Your task to perform on an android device: stop showing notifications on the lock screen Image 0: 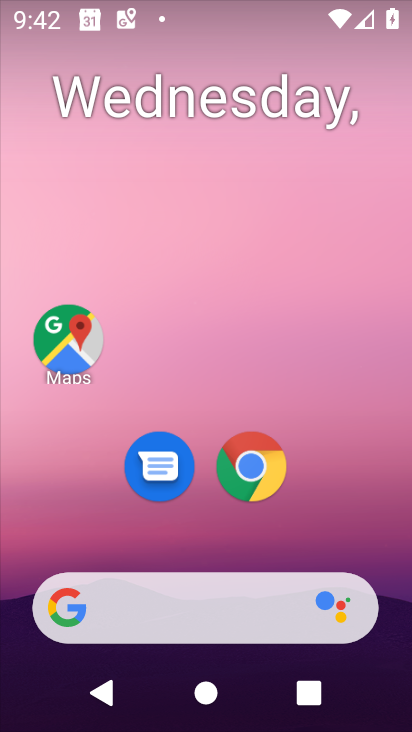
Step 0: click (339, 353)
Your task to perform on an android device: stop showing notifications on the lock screen Image 1: 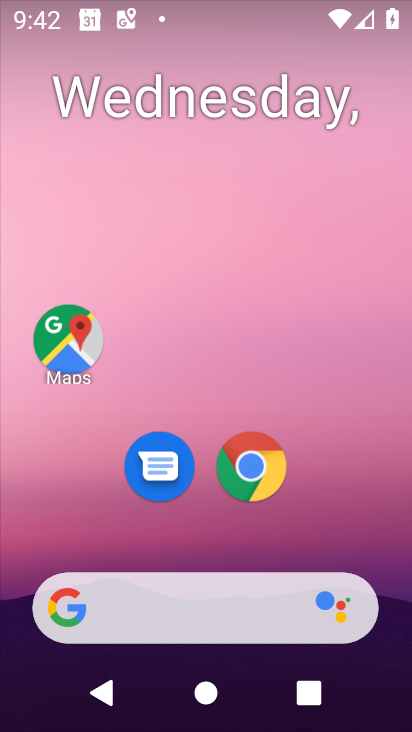
Step 1: drag from (304, 531) to (303, 101)
Your task to perform on an android device: stop showing notifications on the lock screen Image 2: 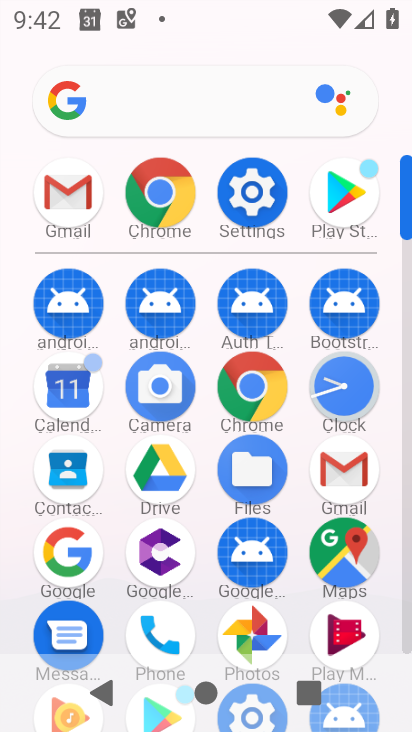
Step 2: click (247, 174)
Your task to perform on an android device: stop showing notifications on the lock screen Image 3: 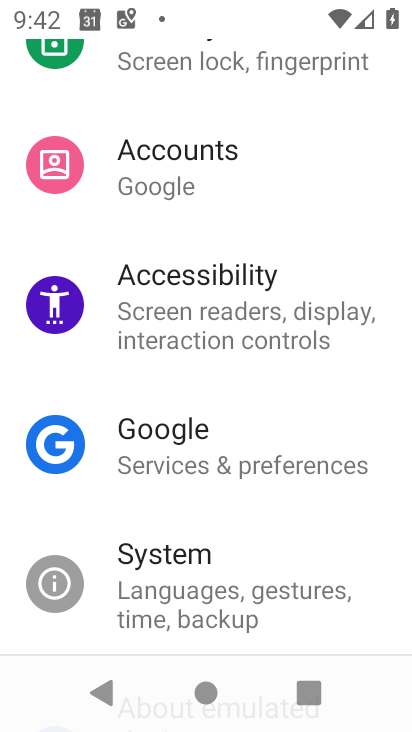
Step 3: drag from (263, 174) to (223, 488)
Your task to perform on an android device: stop showing notifications on the lock screen Image 4: 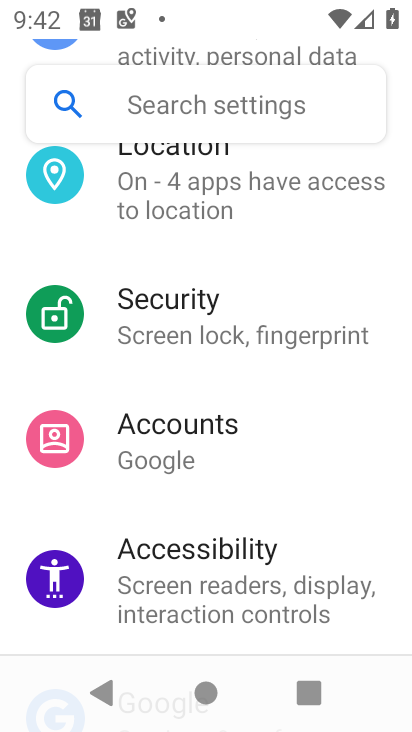
Step 4: drag from (238, 184) to (223, 651)
Your task to perform on an android device: stop showing notifications on the lock screen Image 5: 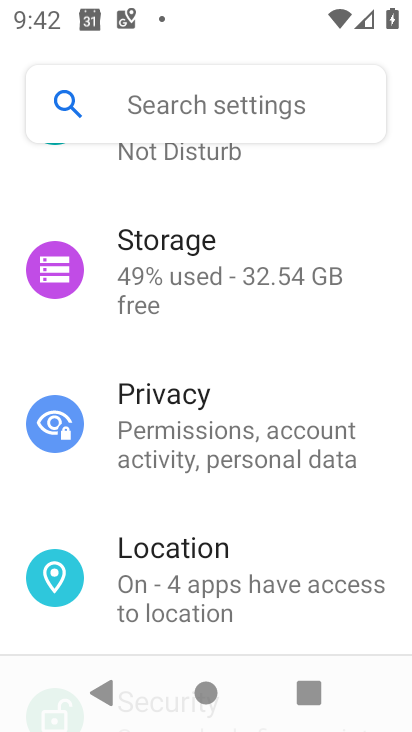
Step 5: drag from (238, 331) to (210, 637)
Your task to perform on an android device: stop showing notifications on the lock screen Image 6: 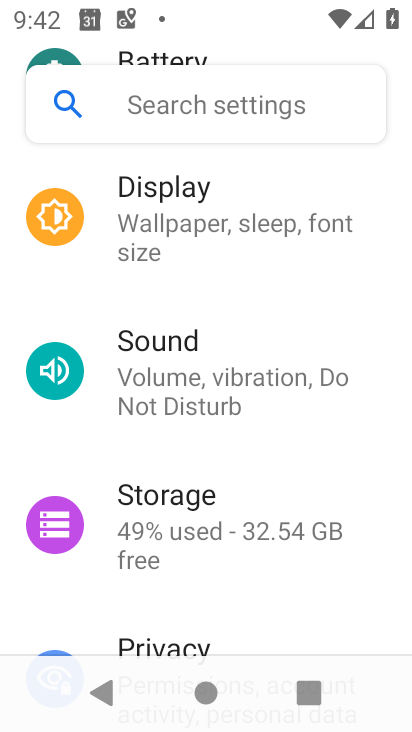
Step 6: drag from (219, 195) to (209, 670)
Your task to perform on an android device: stop showing notifications on the lock screen Image 7: 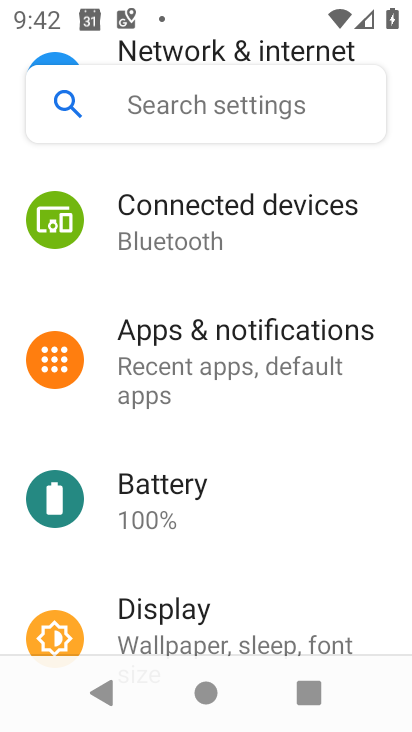
Step 7: click (236, 343)
Your task to perform on an android device: stop showing notifications on the lock screen Image 8: 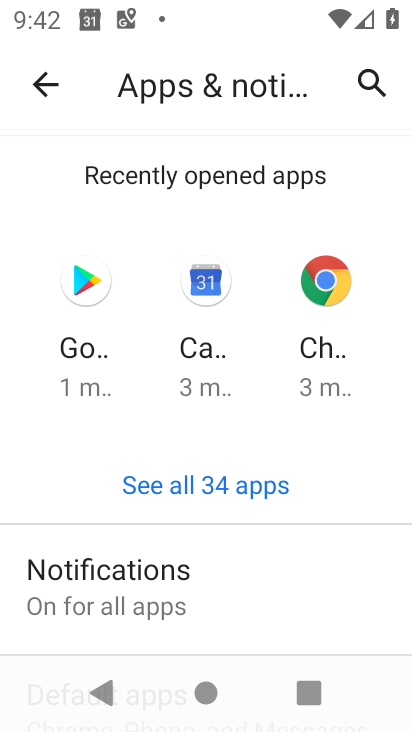
Step 8: drag from (193, 613) to (217, 388)
Your task to perform on an android device: stop showing notifications on the lock screen Image 9: 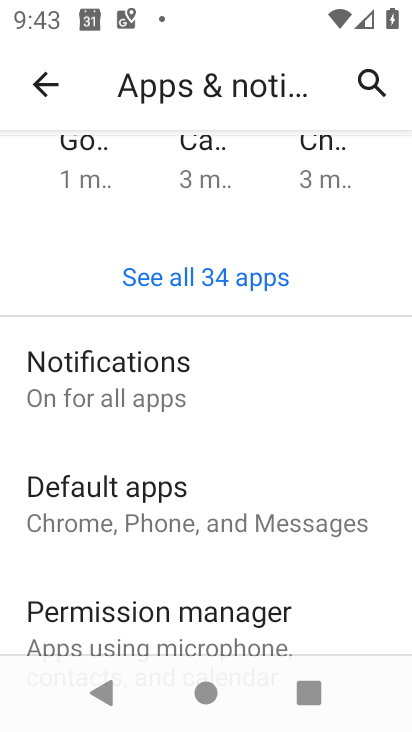
Step 9: drag from (154, 602) to (252, 322)
Your task to perform on an android device: stop showing notifications on the lock screen Image 10: 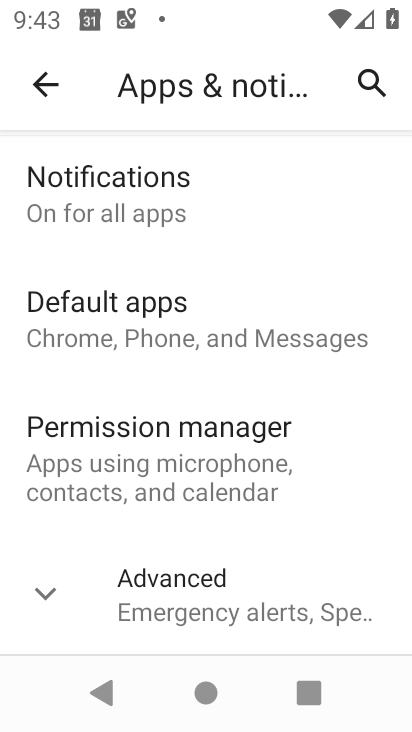
Step 10: click (122, 193)
Your task to perform on an android device: stop showing notifications on the lock screen Image 11: 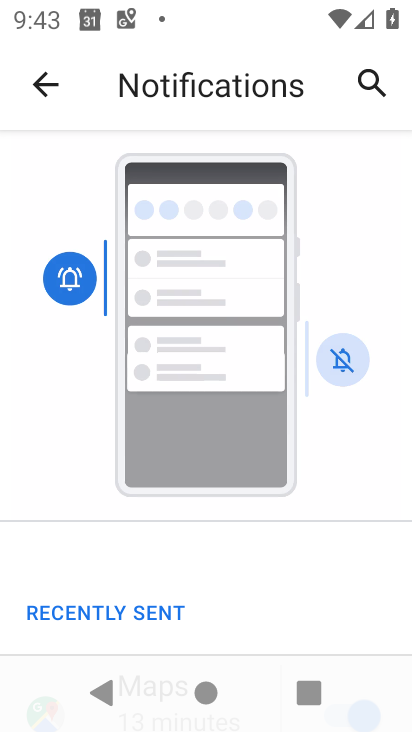
Step 11: drag from (240, 601) to (302, 85)
Your task to perform on an android device: stop showing notifications on the lock screen Image 12: 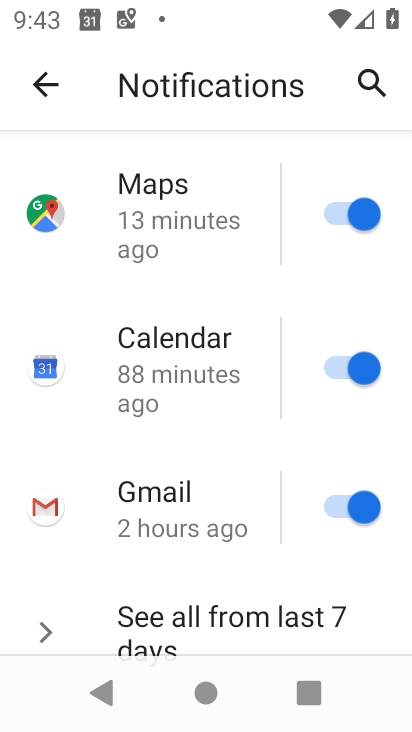
Step 12: drag from (134, 511) to (198, 244)
Your task to perform on an android device: stop showing notifications on the lock screen Image 13: 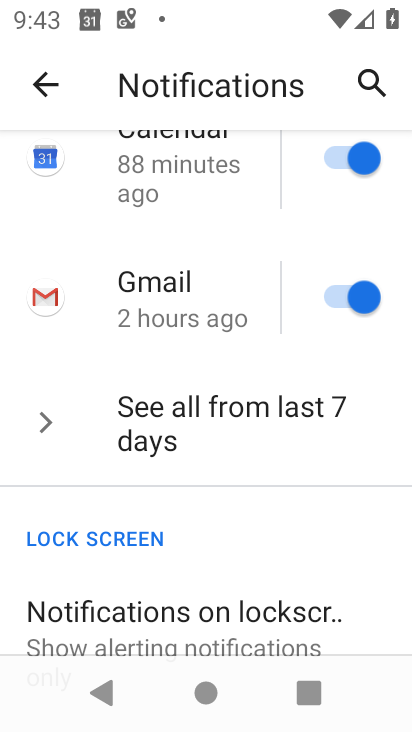
Step 13: drag from (149, 616) to (202, 347)
Your task to perform on an android device: stop showing notifications on the lock screen Image 14: 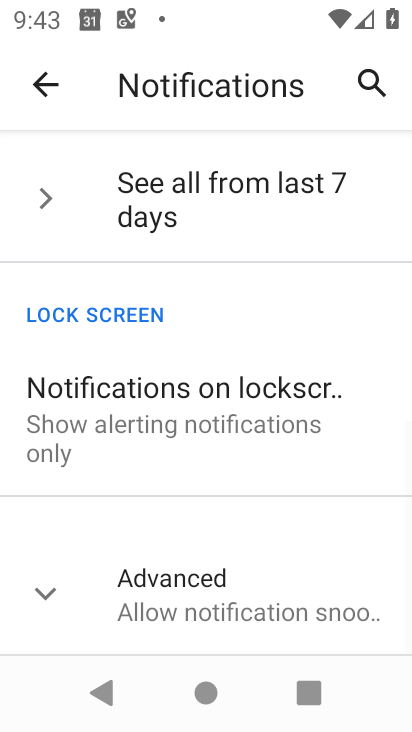
Step 14: click (163, 426)
Your task to perform on an android device: stop showing notifications on the lock screen Image 15: 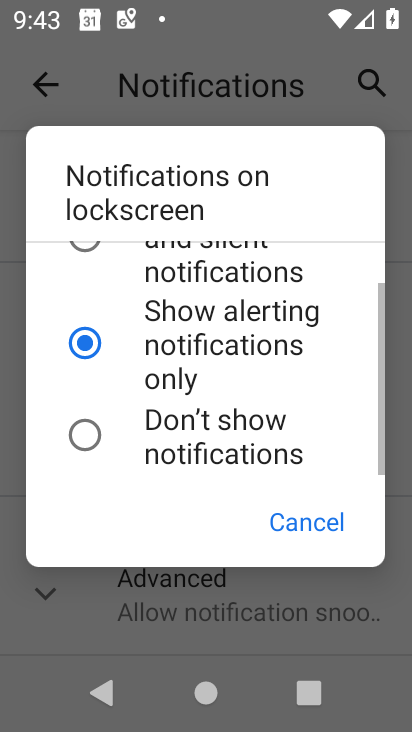
Step 15: click (177, 426)
Your task to perform on an android device: stop showing notifications on the lock screen Image 16: 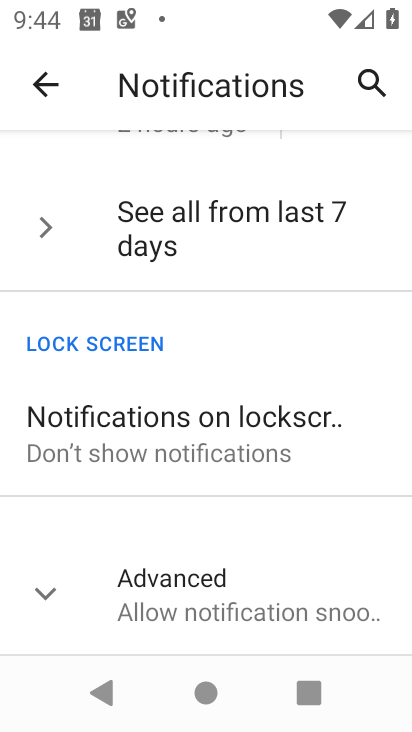
Step 16: task complete